Your task to perform on an android device: Do I have any events this weekend? Image 0: 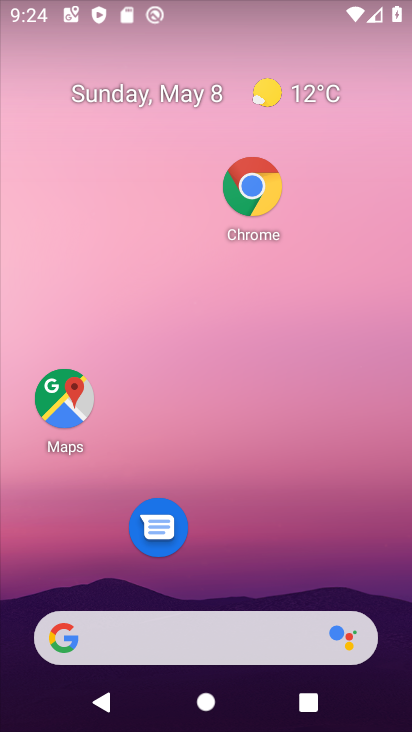
Step 0: drag from (320, 562) to (322, 324)
Your task to perform on an android device: Do I have any events this weekend? Image 1: 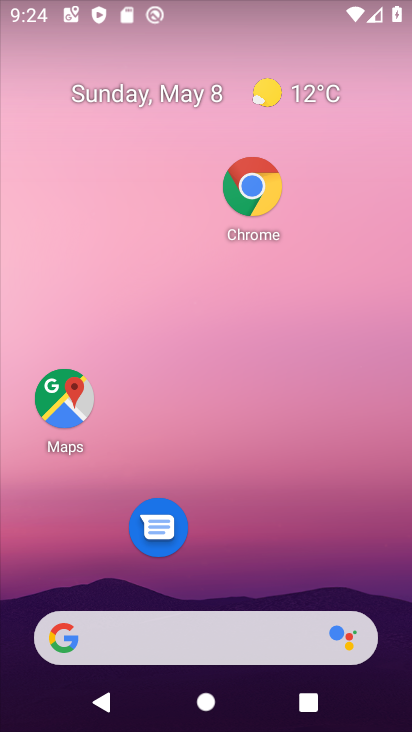
Step 1: drag from (274, 574) to (303, 269)
Your task to perform on an android device: Do I have any events this weekend? Image 2: 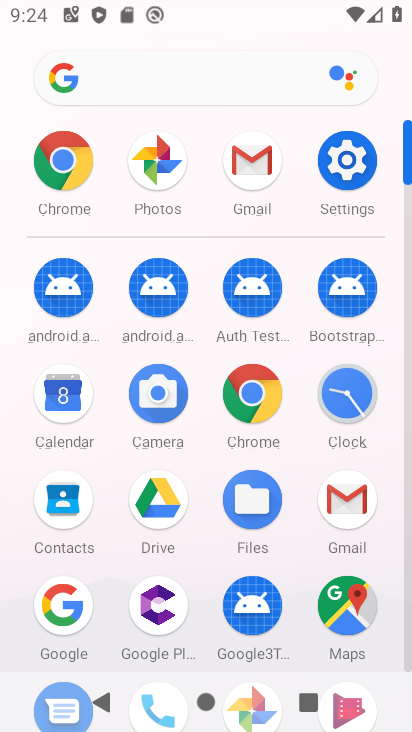
Step 2: click (59, 392)
Your task to perform on an android device: Do I have any events this weekend? Image 3: 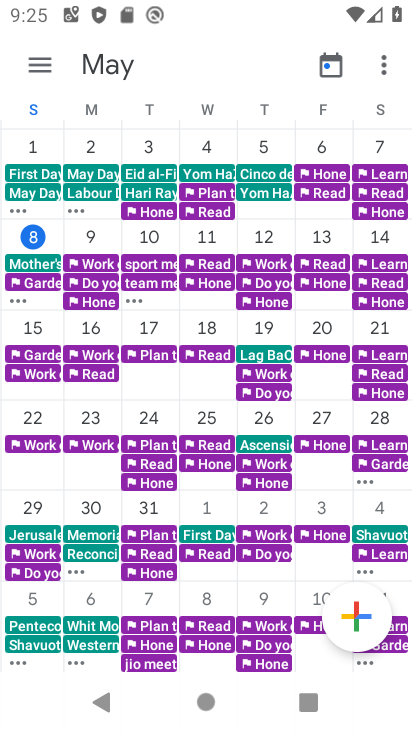
Step 3: drag from (349, 426) to (285, 413)
Your task to perform on an android device: Do I have any events this weekend? Image 4: 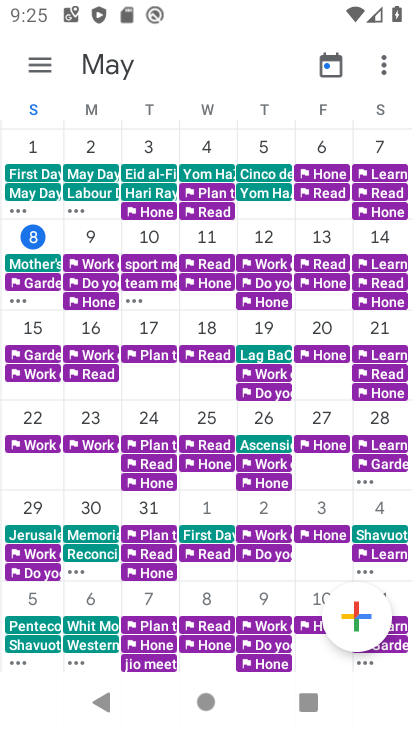
Step 4: click (82, 238)
Your task to perform on an android device: Do I have any events this weekend? Image 5: 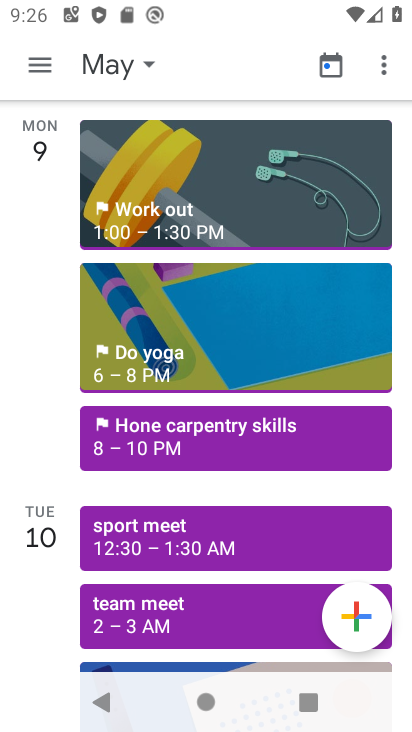
Step 5: task complete